Your task to perform on an android device: Check the weather Image 0: 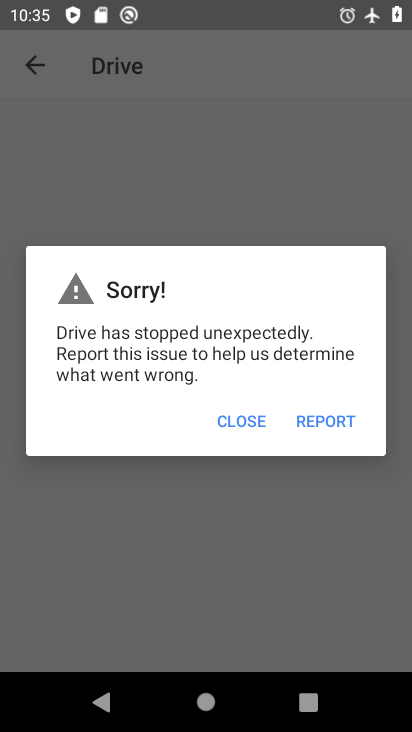
Step 0: press home button
Your task to perform on an android device: Check the weather Image 1: 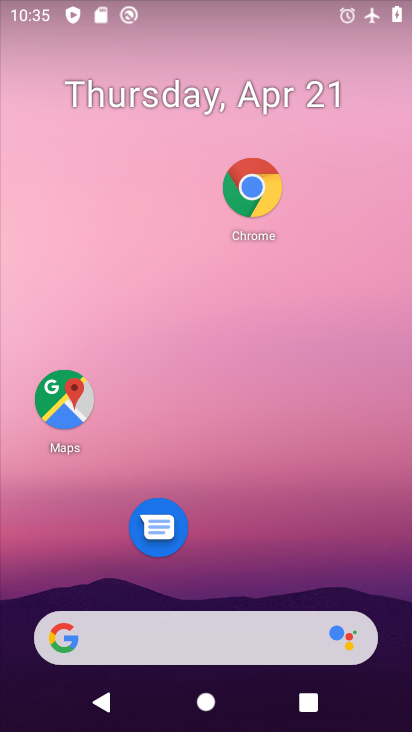
Step 1: drag from (252, 646) to (392, 131)
Your task to perform on an android device: Check the weather Image 2: 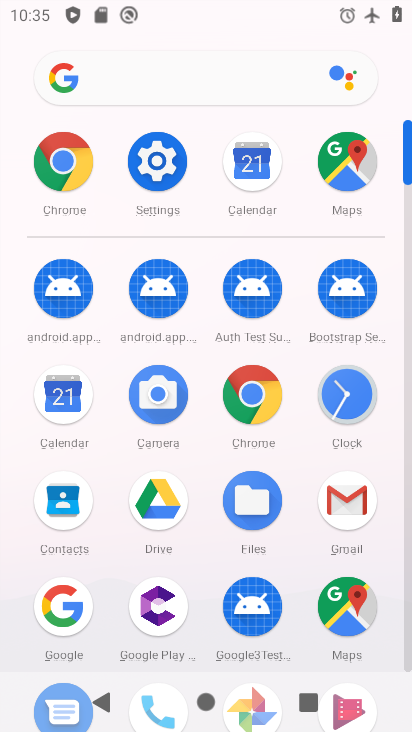
Step 2: click (62, 620)
Your task to perform on an android device: Check the weather Image 3: 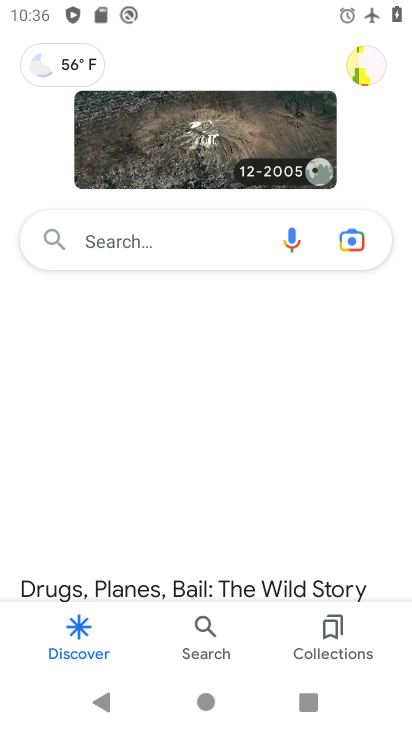
Step 3: click (203, 241)
Your task to perform on an android device: Check the weather Image 4: 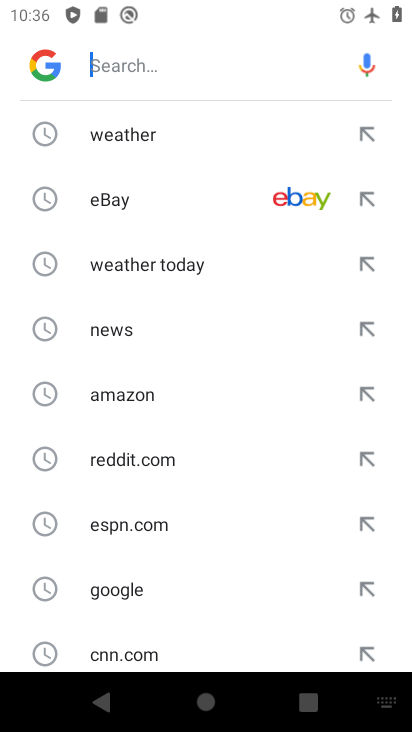
Step 4: click (196, 138)
Your task to perform on an android device: Check the weather Image 5: 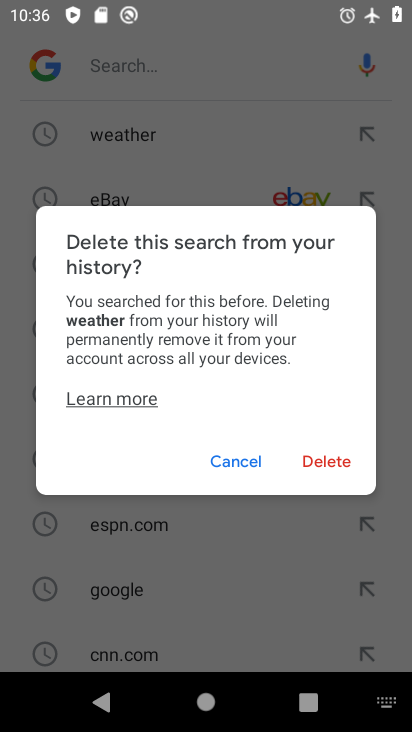
Step 5: click (233, 460)
Your task to perform on an android device: Check the weather Image 6: 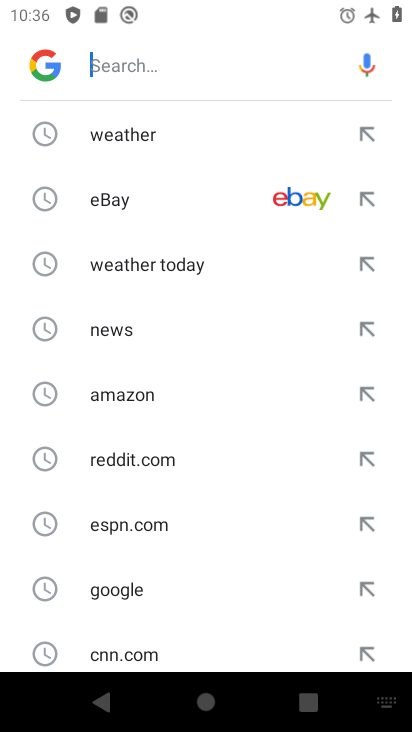
Step 6: task complete